Your task to perform on an android device: show emergency info Image 0: 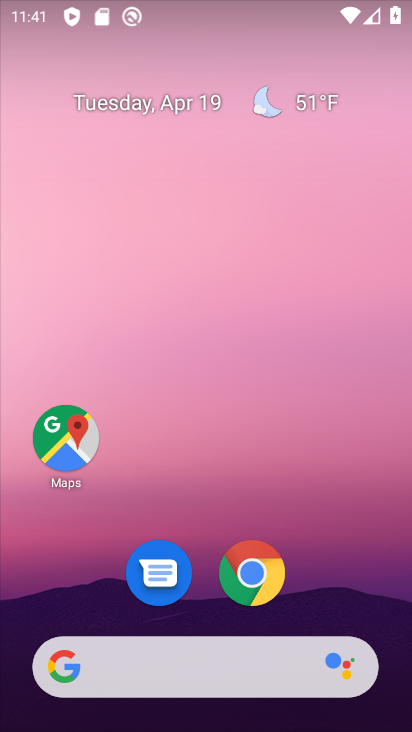
Step 0: drag from (325, 560) to (341, 118)
Your task to perform on an android device: show emergency info Image 1: 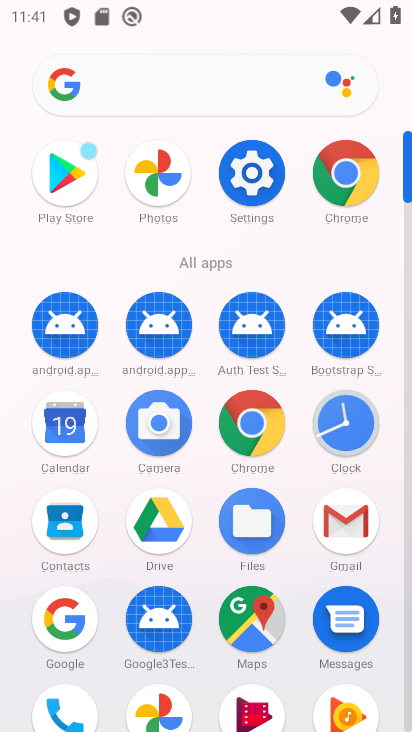
Step 1: click (266, 190)
Your task to perform on an android device: show emergency info Image 2: 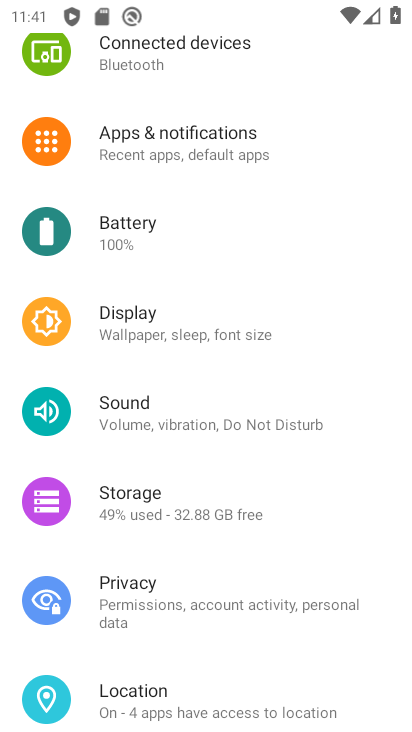
Step 2: drag from (251, 74) to (218, 496)
Your task to perform on an android device: show emergency info Image 3: 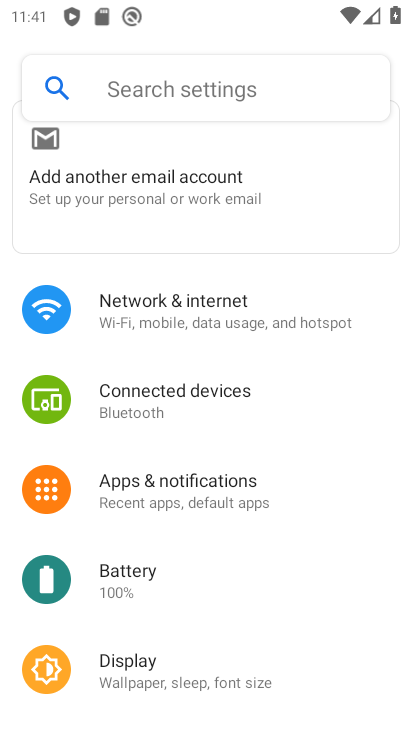
Step 3: click (166, 87)
Your task to perform on an android device: show emergency info Image 4: 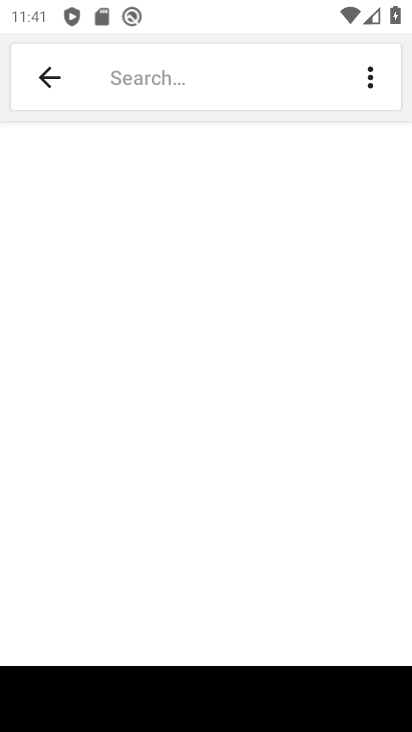
Step 4: type "emergency info"
Your task to perform on an android device: show emergency info Image 5: 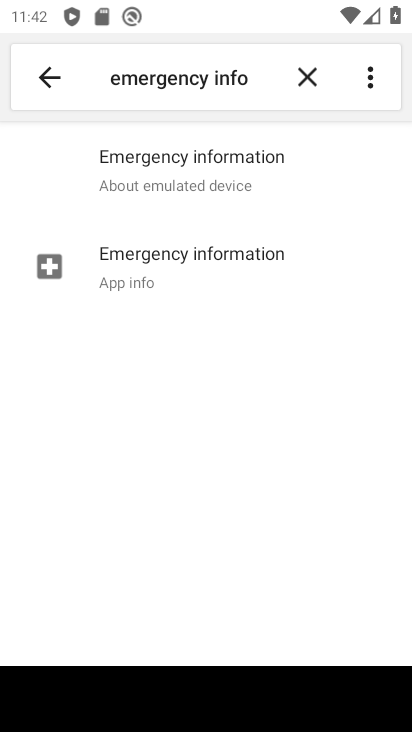
Step 5: click (212, 265)
Your task to perform on an android device: show emergency info Image 6: 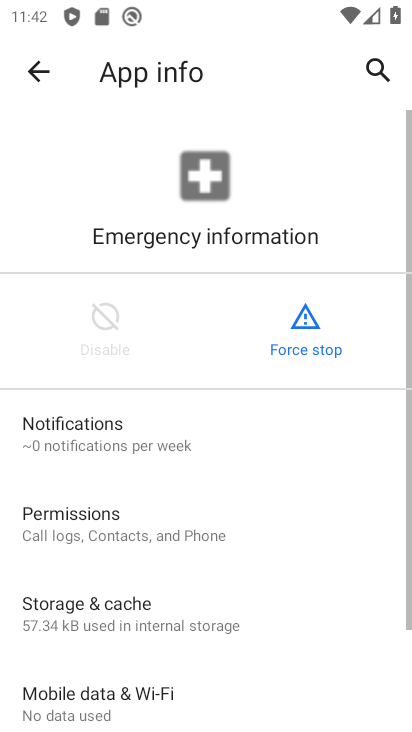
Step 6: task complete